Your task to perform on an android device: find photos in the google photos app Image 0: 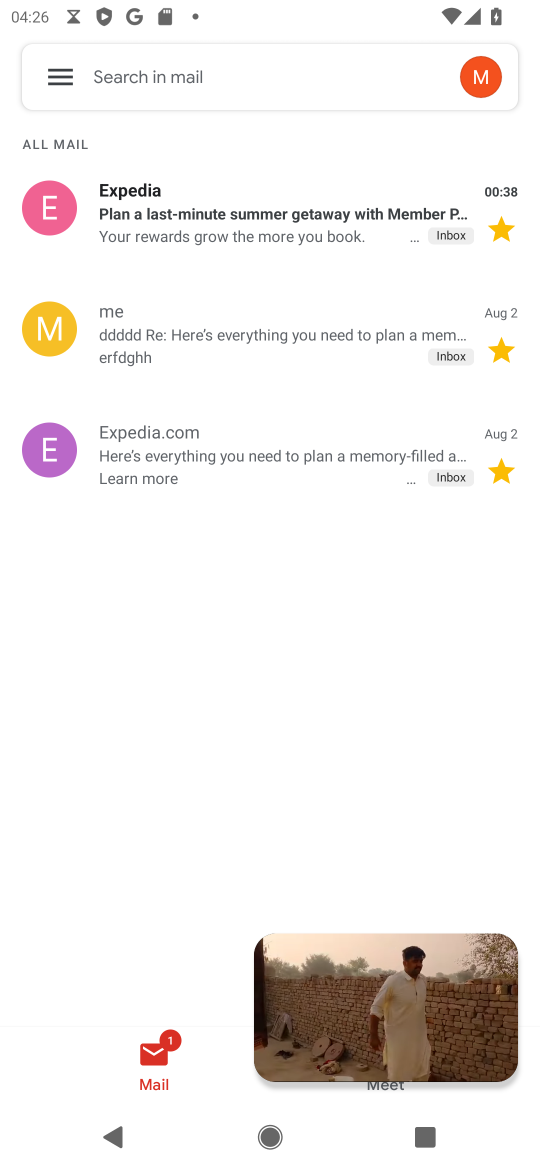
Step 0: click (477, 962)
Your task to perform on an android device: find photos in the google photos app Image 1: 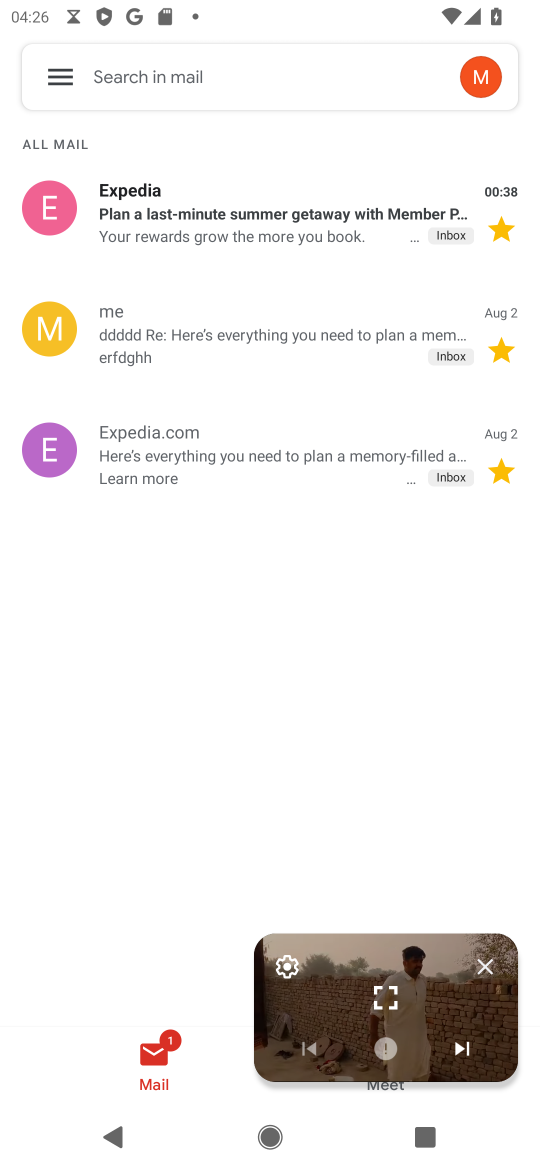
Step 1: click (486, 974)
Your task to perform on an android device: find photos in the google photos app Image 2: 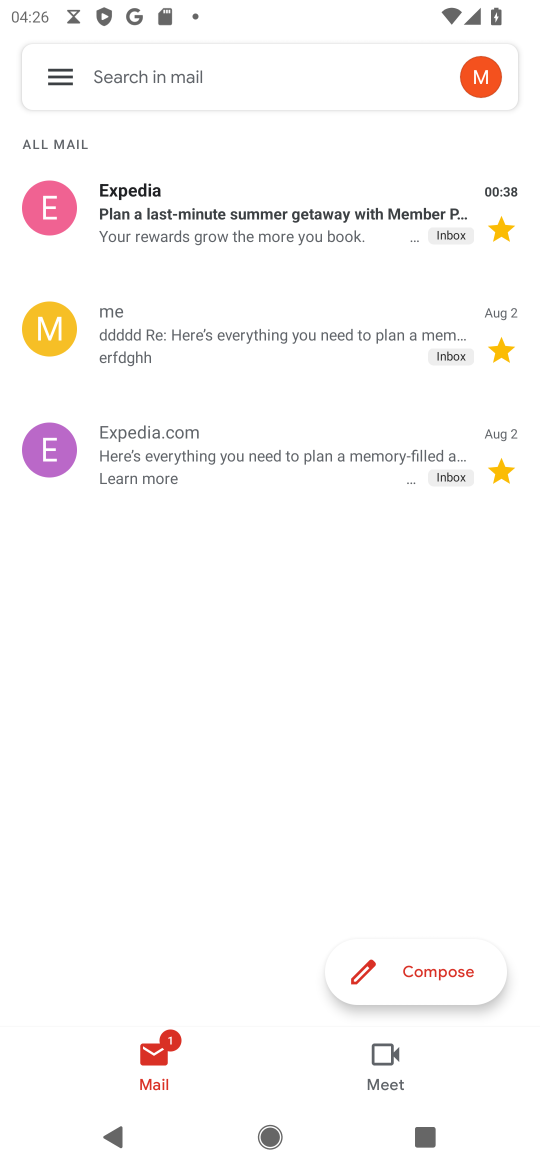
Step 2: press home button
Your task to perform on an android device: find photos in the google photos app Image 3: 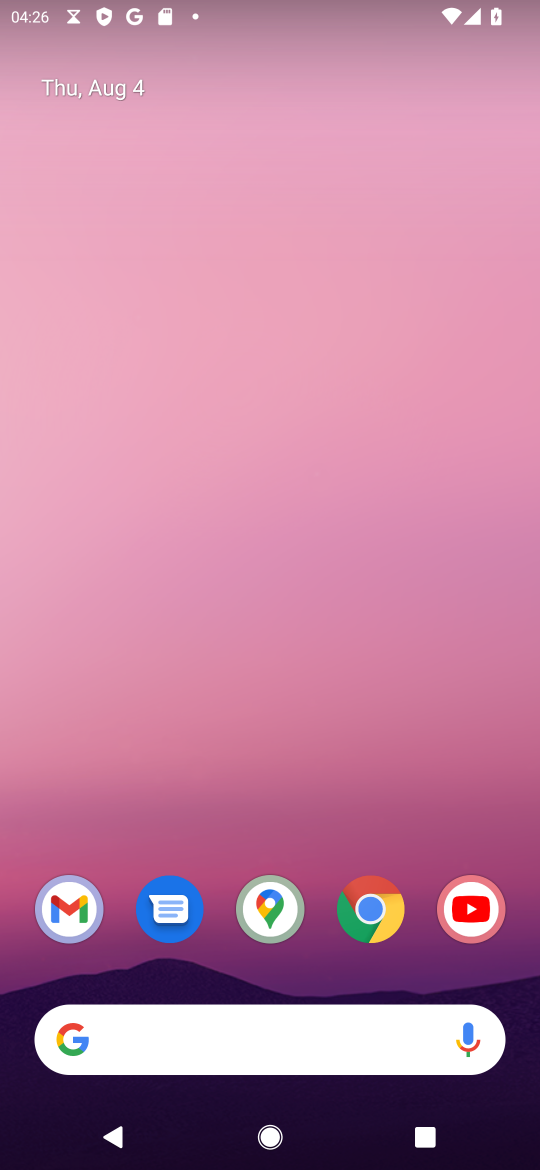
Step 3: drag from (290, 997) to (449, 178)
Your task to perform on an android device: find photos in the google photos app Image 4: 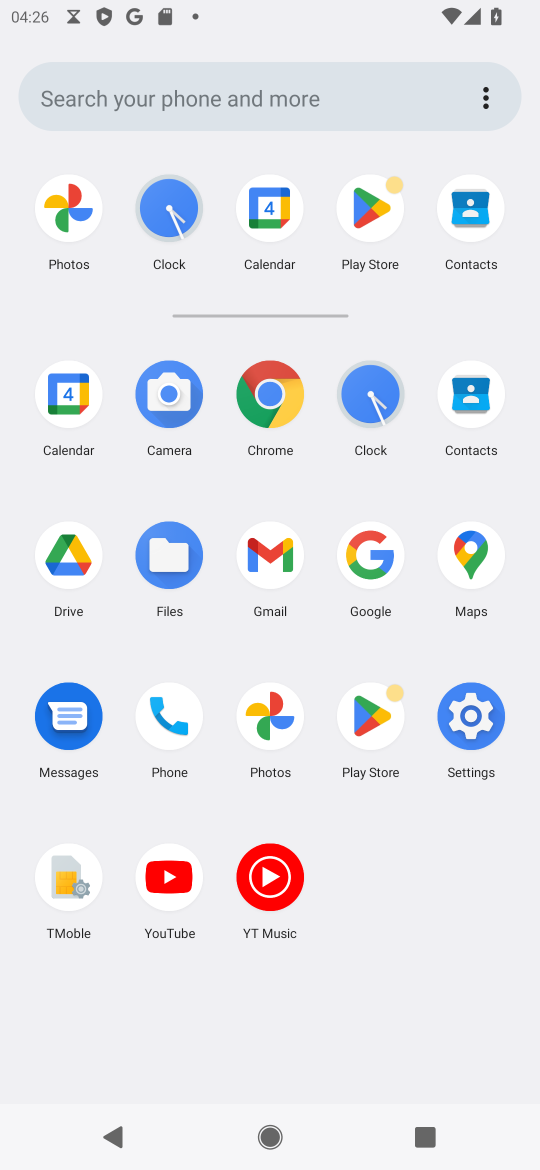
Step 4: click (265, 716)
Your task to perform on an android device: find photos in the google photos app Image 5: 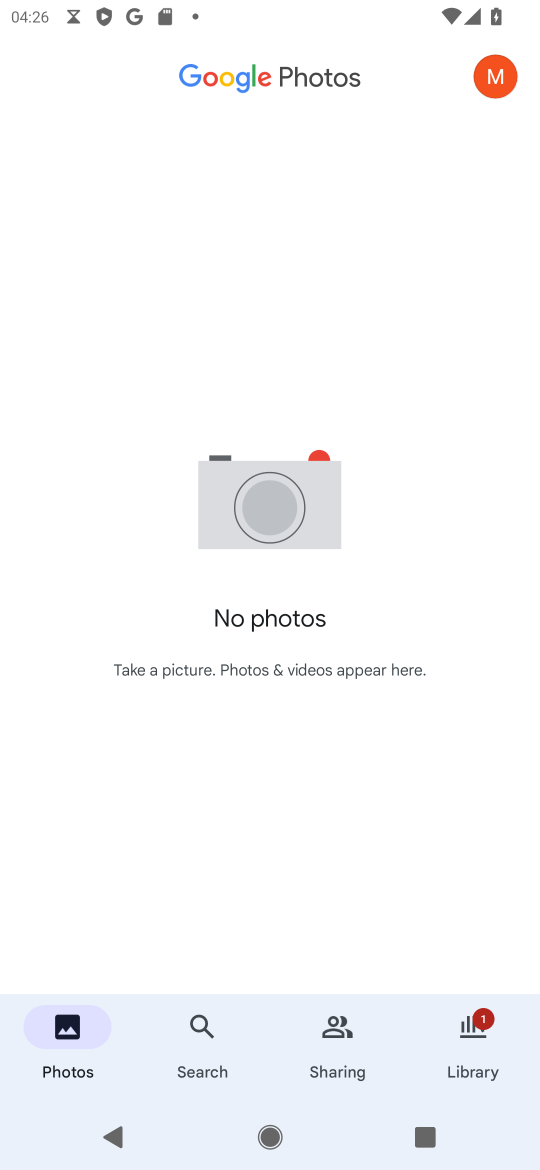
Step 5: task complete